Your task to perform on an android device: turn on location history Image 0: 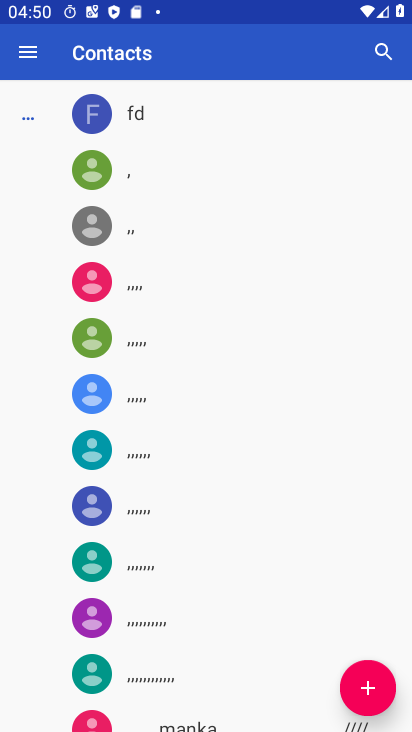
Step 0: press home button
Your task to perform on an android device: turn on location history Image 1: 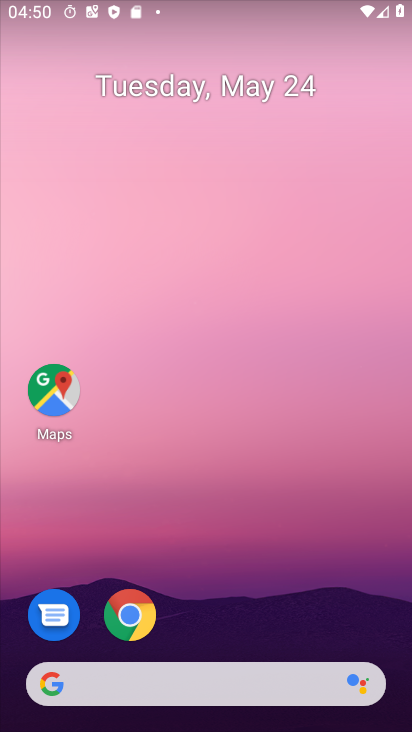
Step 1: drag from (219, 556) to (256, 111)
Your task to perform on an android device: turn on location history Image 2: 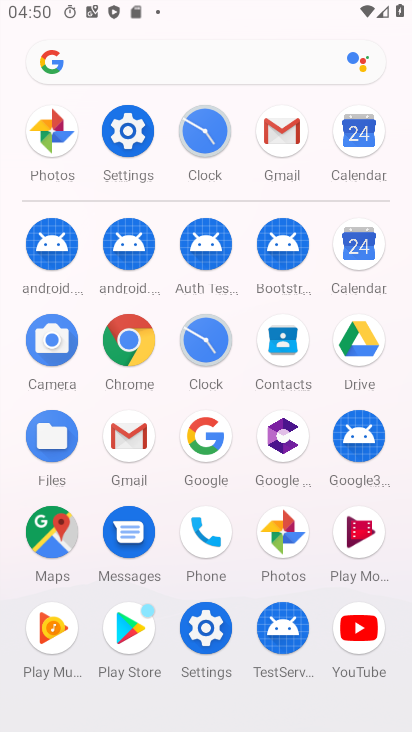
Step 2: click (120, 109)
Your task to perform on an android device: turn on location history Image 3: 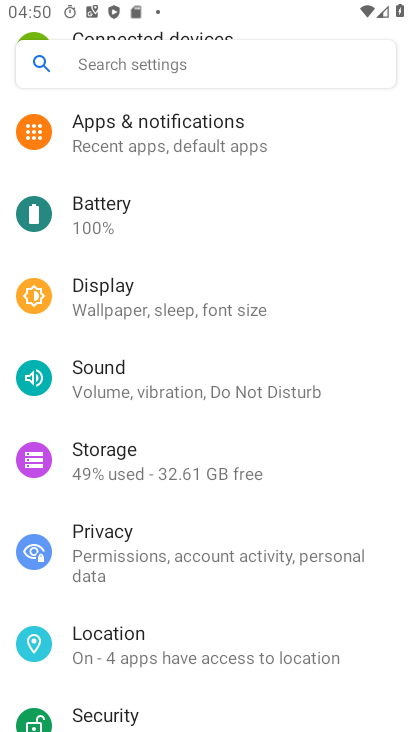
Step 3: click (114, 667)
Your task to perform on an android device: turn on location history Image 4: 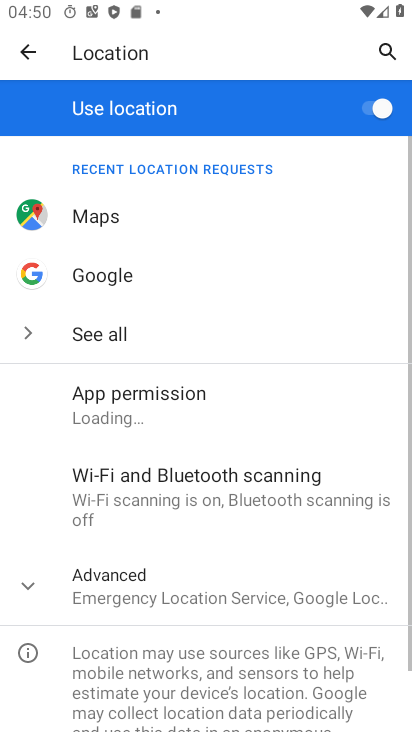
Step 4: click (156, 595)
Your task to perform on an android device: turn on location history Image 5: 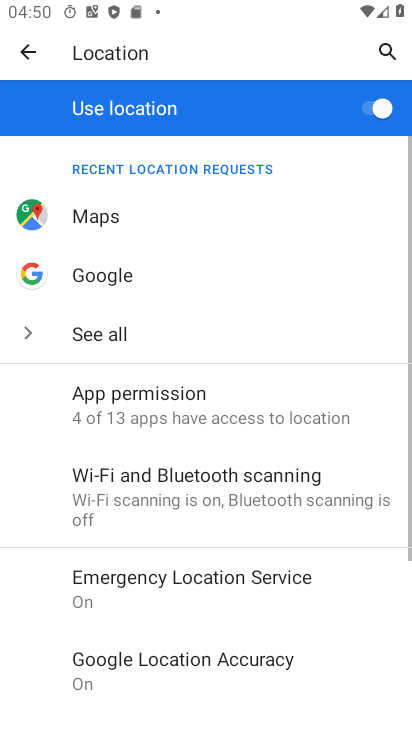
Step 5: drag from (138, 661) to (206, 379)
Your task to perform on an android device: turn on location history Image 6: 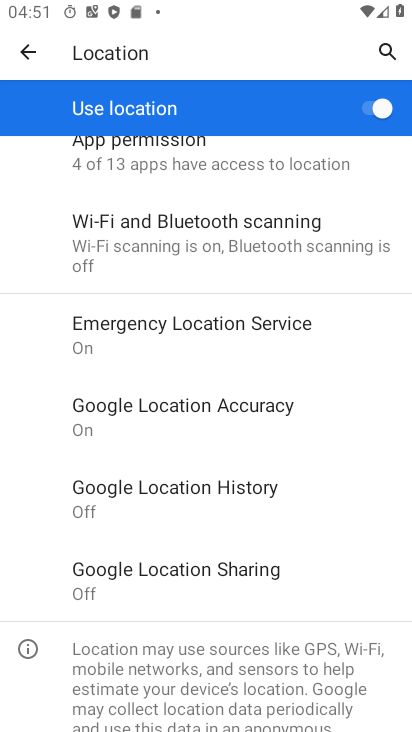
Step 6: click (271, 493)
Your task to perform on an android device: turn on location history Image 7: 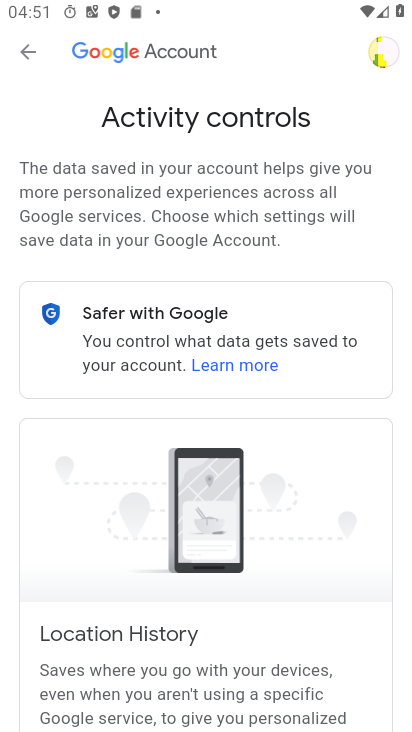
Step 7: drag from (198, 649) to (237, 245)
Your task to perform on an android device: turn on location history Image 8: 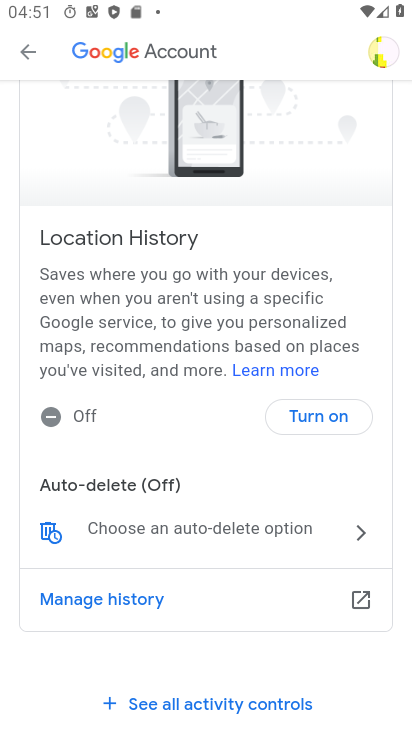
Step 8: click (303, 420)
Your task to perform on an android device: turn on location history Image 9: 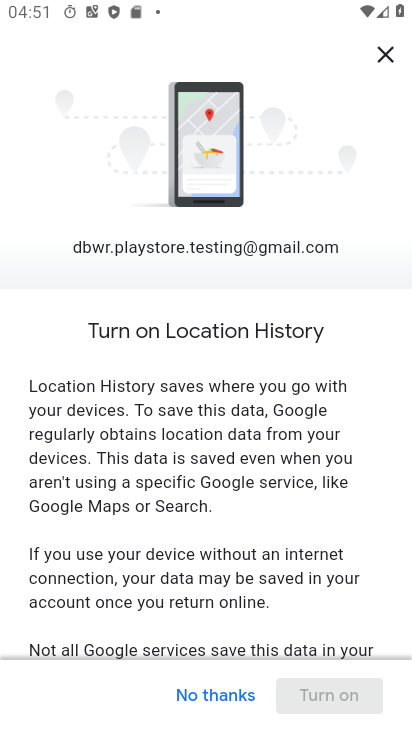
Step 9: drag from (237, 586) to (307, 158)
Your task to perform on an android device: turn on location history Image 10: 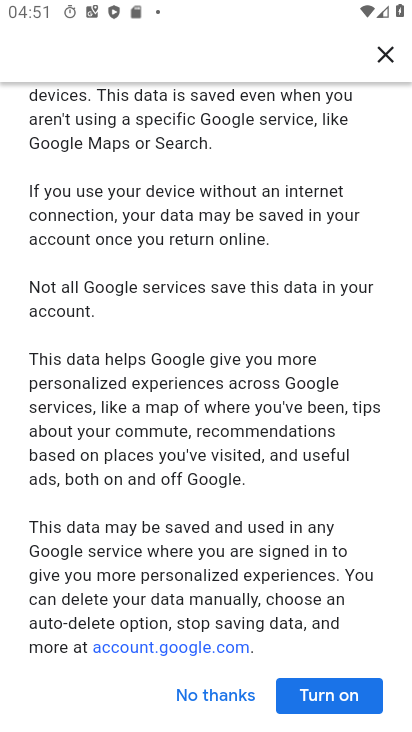
Step 10: drag from (243, 620) to (301, 135)
Your task to perform on an android device: turn on location history Image 11: 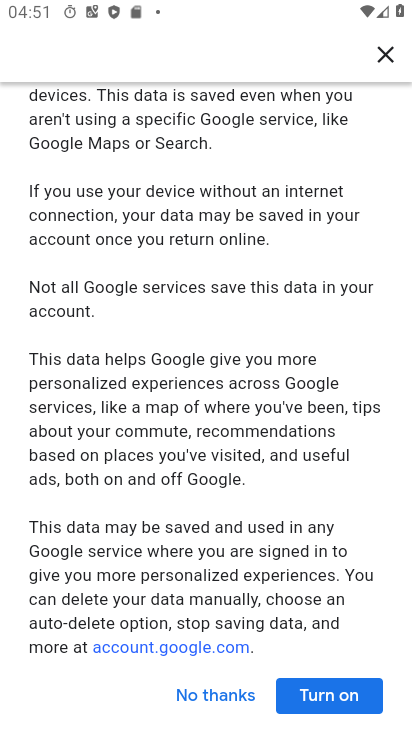
Step 11: click (321, 696)
Your task to perform on an android device: turn on location history Image 12: 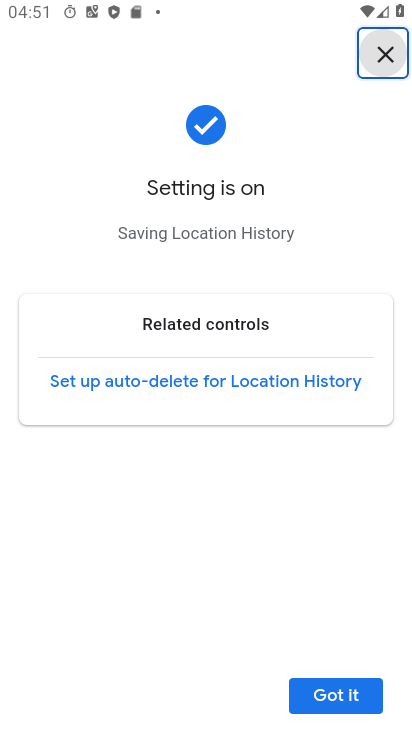
Step 12: click (343, 697)
Your task to perform on an android device: turn on location history Image 13: 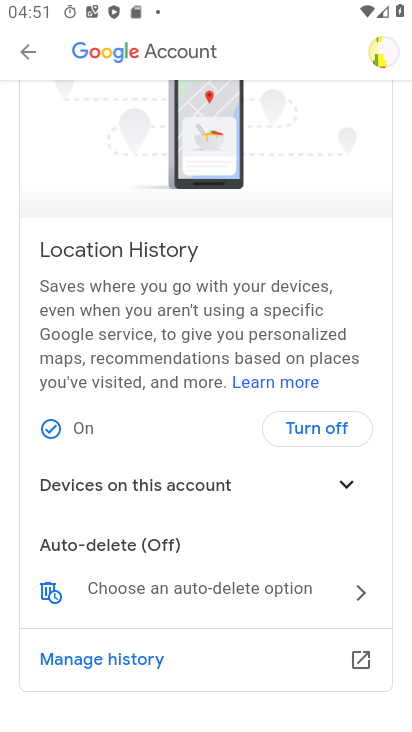
Step 13: task complete